Your task to perform on an android device: snooze an email in the gmail app Image 0: 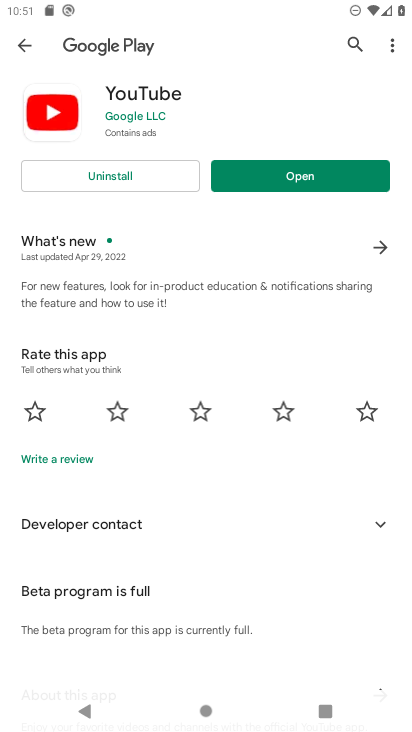
Step 0: press home button
Your task to perform on an android device: snooze an email in the gmail app Image 1: 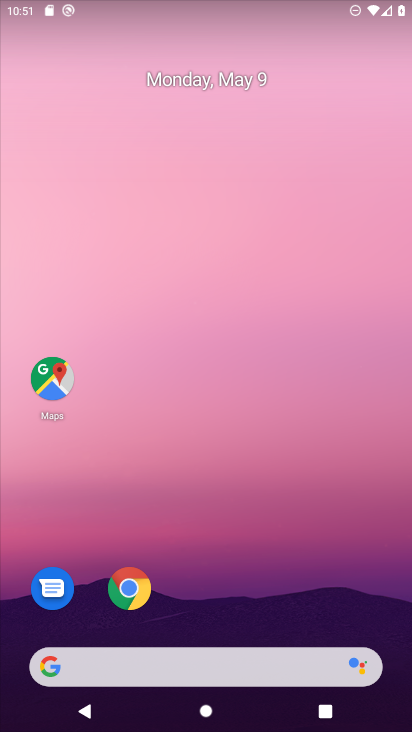
Step 1: drag from (312, 566) to (312, 172)
Your task to perform on an android device: snooze an email in the gmail app Image 2: 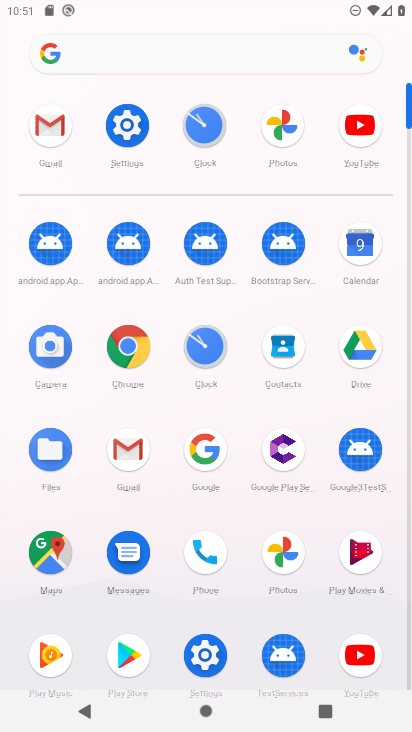
Step 2: click (139, 444)
Your task to perform on an android device: snooze an email in the gmail app Image 3: 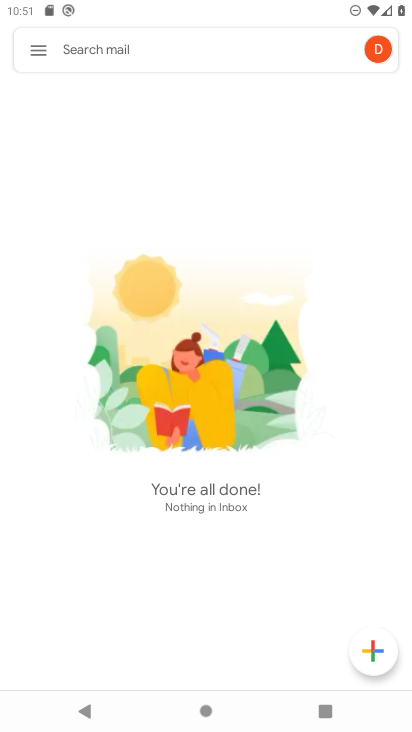
Step 3: click (40, 47)
Your task to perform on an android device: snooze an email in the gmail app Image 4: 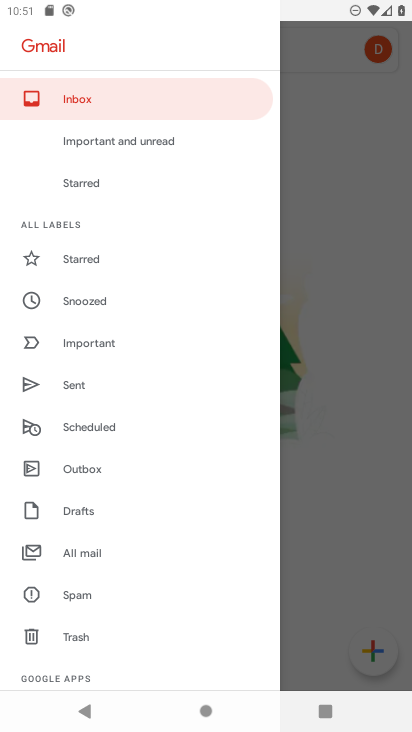
Step 4: click (137, 294)
Your task to perform on an android device: snooze an email in the gmail app Image 5: 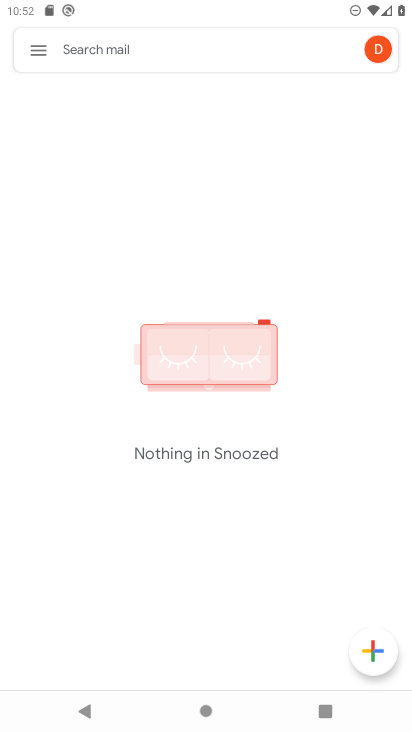
Step 5: task complete